Your task to perform on an android device: open sync settings in chrome Image 0: 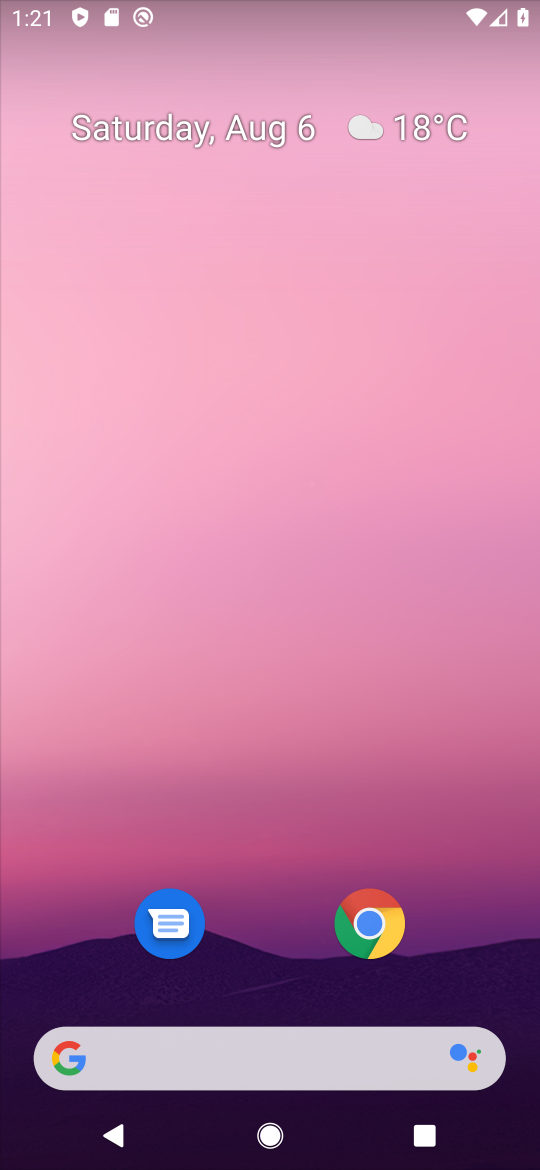
Step 0: drag from (296, 880) to (522, 265)
Your task to perform on an android device: open sync settings in chrome Image 1: 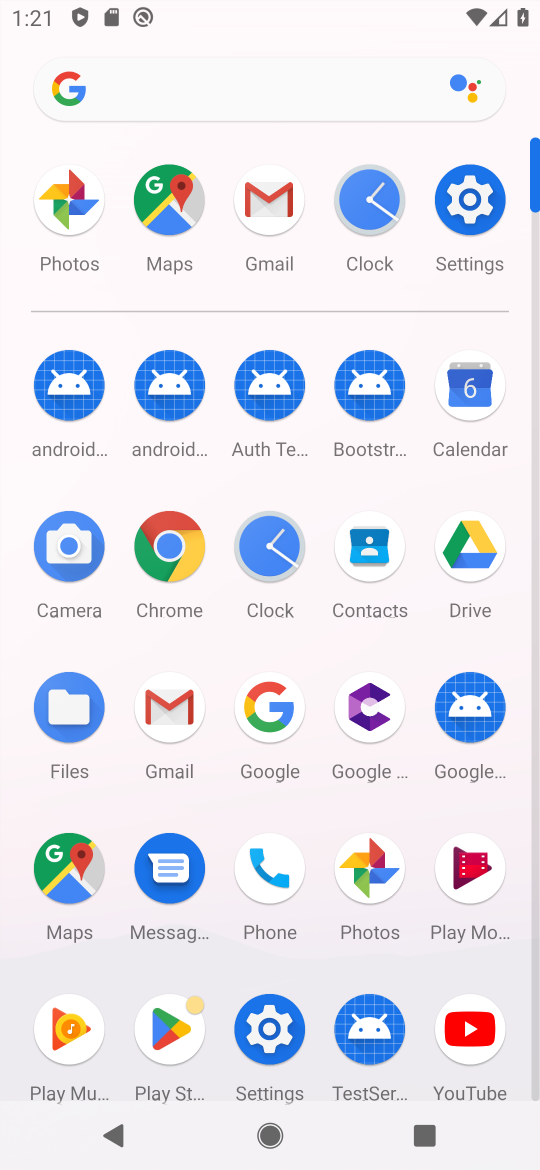
Step 1: drag from (313, 938) to (294, 313)
Your task to perform on an android device: open sync settings in chrome Image 2: 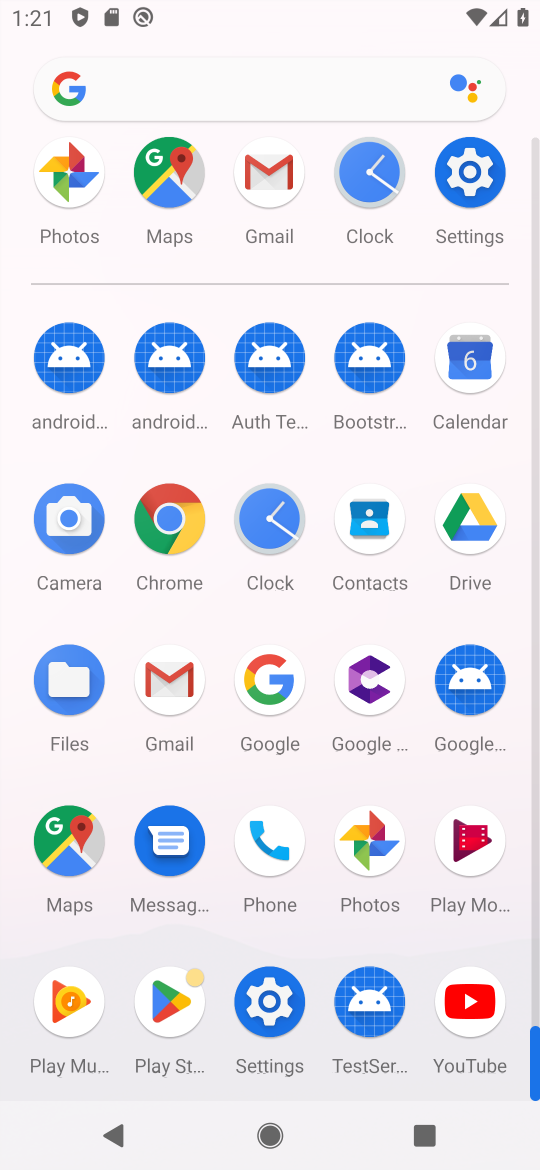
Step 2: click (147, 502)
Your task to perform on an android device: open sync settings in chrome Image 3: 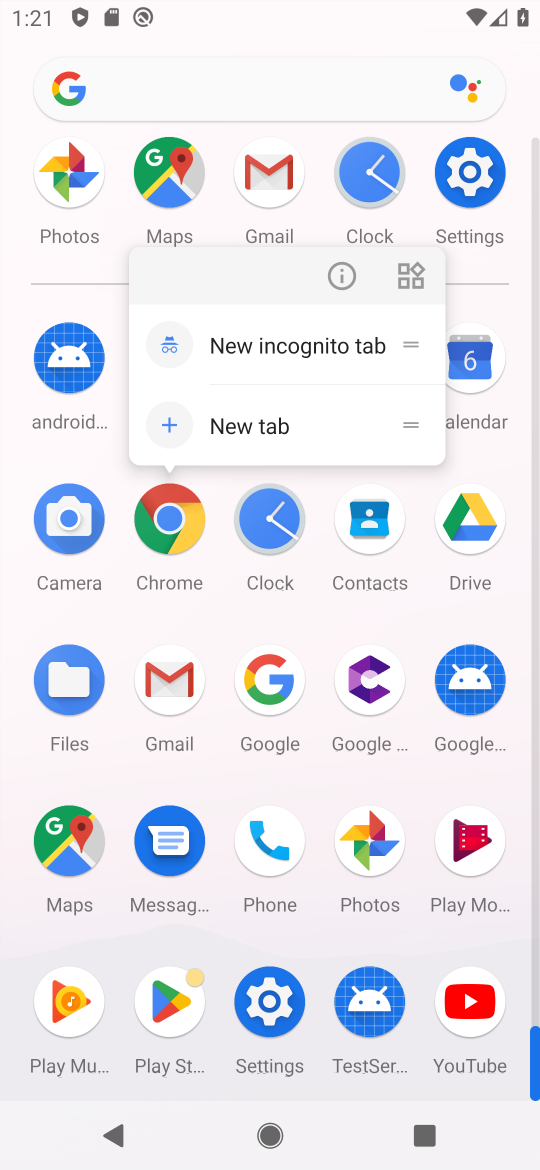
Step 3: click (331, 282)
Your task to perform on an android device: open sync settings in chrome Image 4: 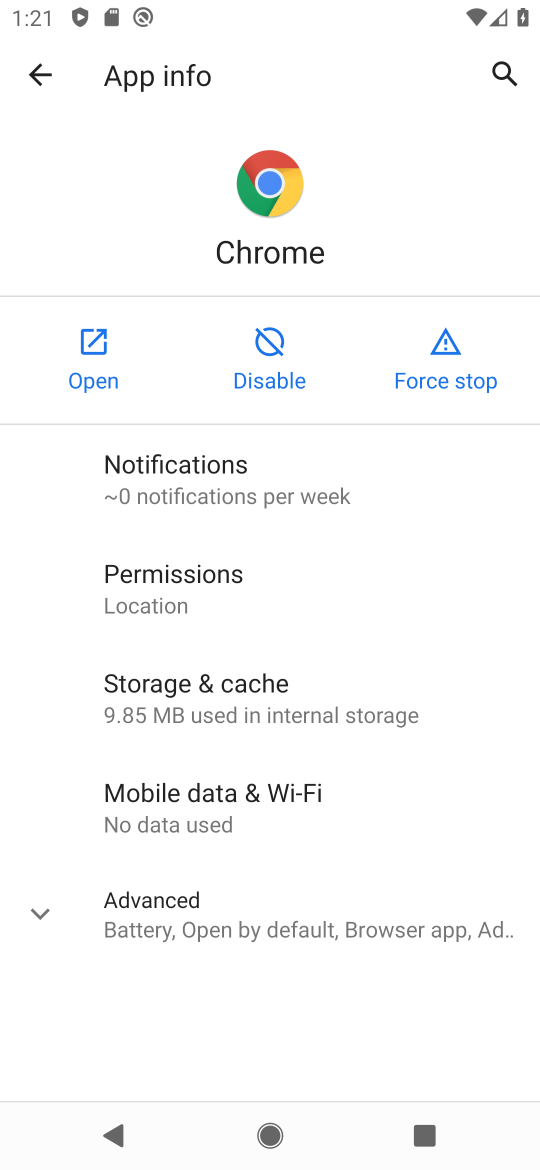
Step 4: click (87, 343)
Your task to perform on an android device: open sync settings in chrome Image 5: 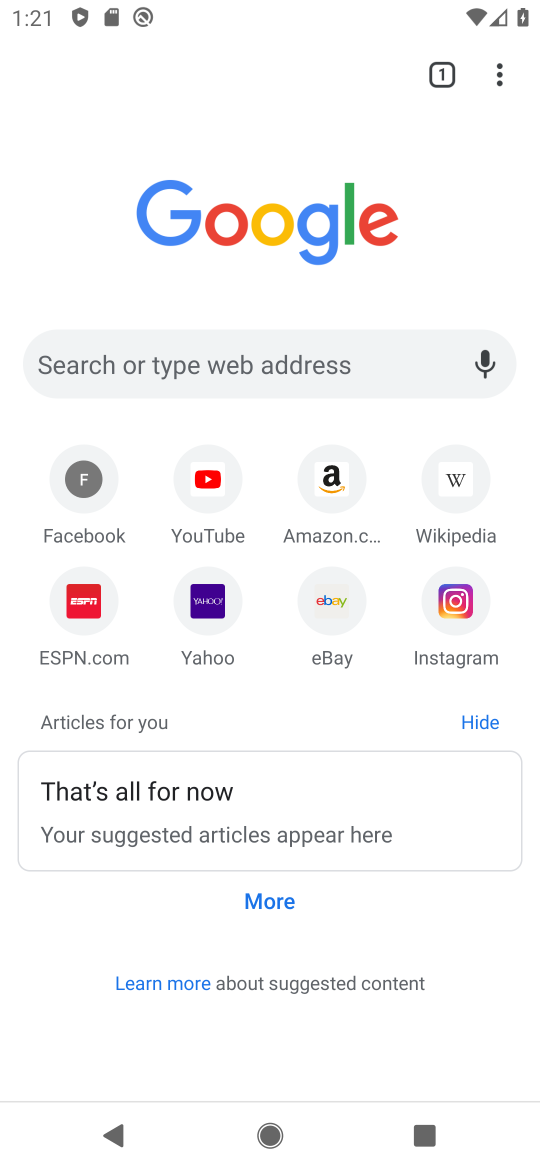
Step 5: drag from (496, 65) to (263, 725)
Your task to perform on an android device: open sync settings in chrome Image 6: 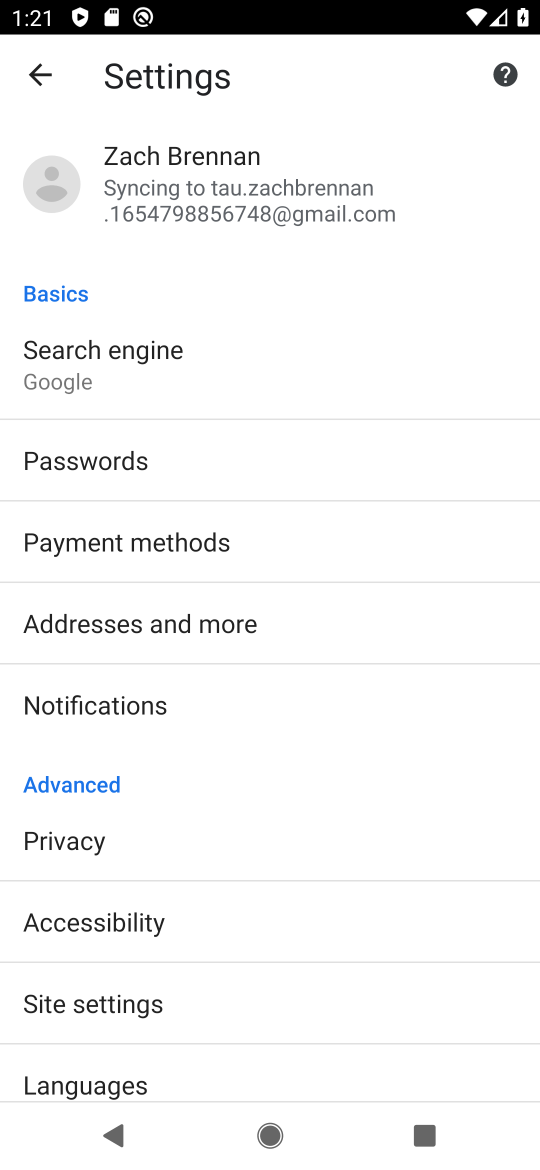
Step 6: click (170, 1017)
Your task to perform on an android device: open sync settings in chrome Image 7: 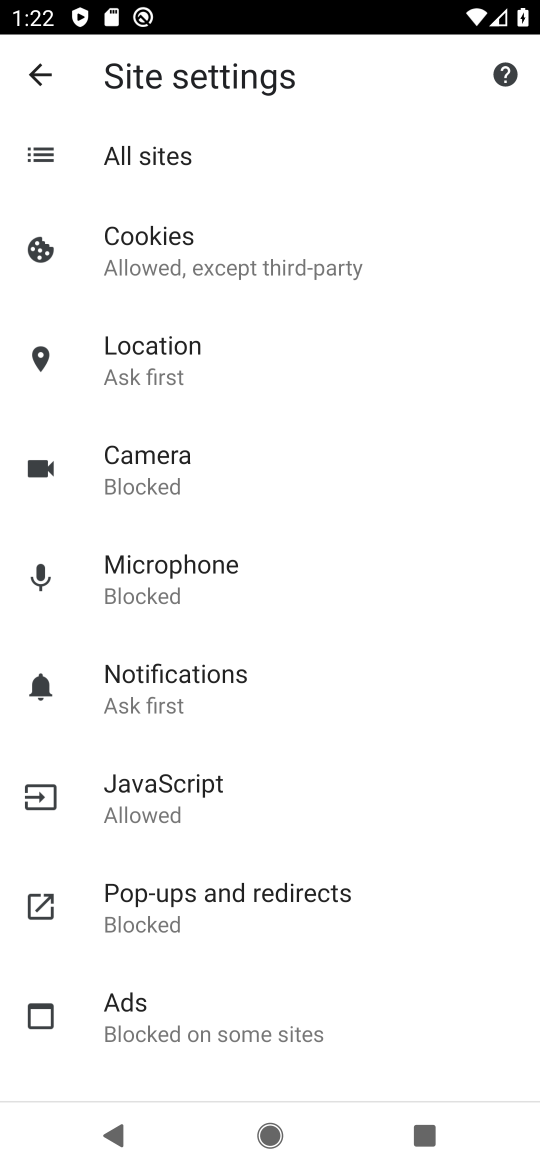
Step 7: drag from (225, 916) to (273, 319)
Your task to perform on an android device: open sync settings in chrome Image 8: 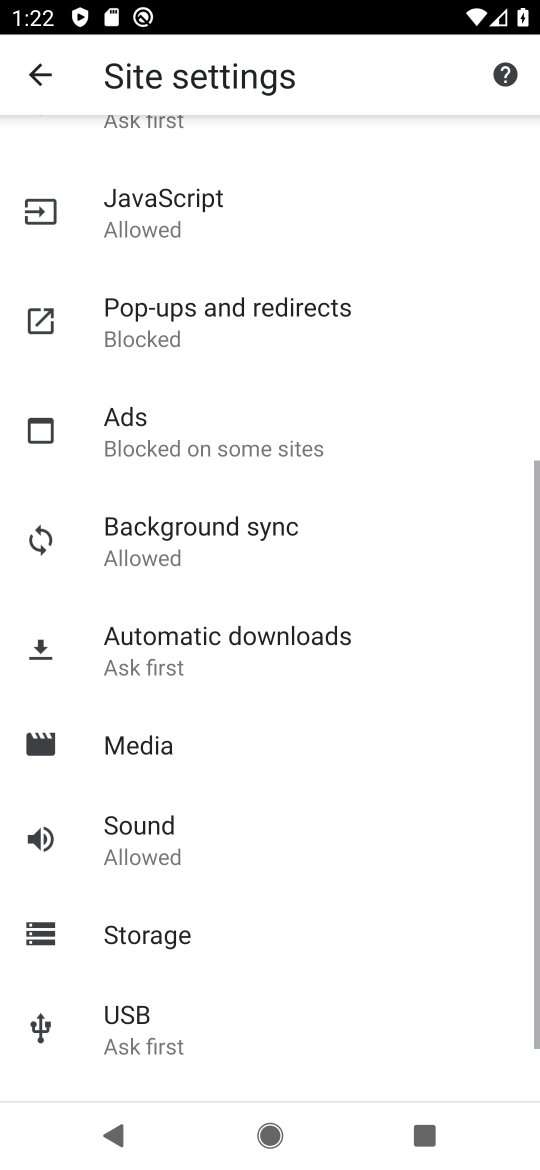
Step 8: drag from (227, 862) to (302, 418)
Your task to perform on an android device: open sync settings in chrome Image 9: 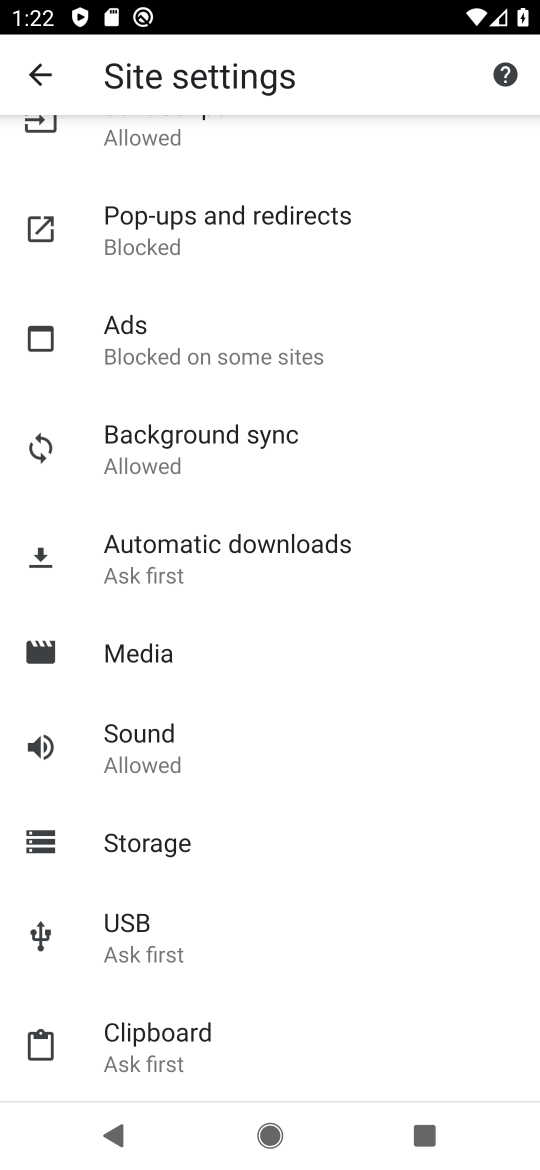
Step 9: drag from (262, 999) to (294, 311)
Your task to perform on an android device: open sync settings in chrome Image 10: 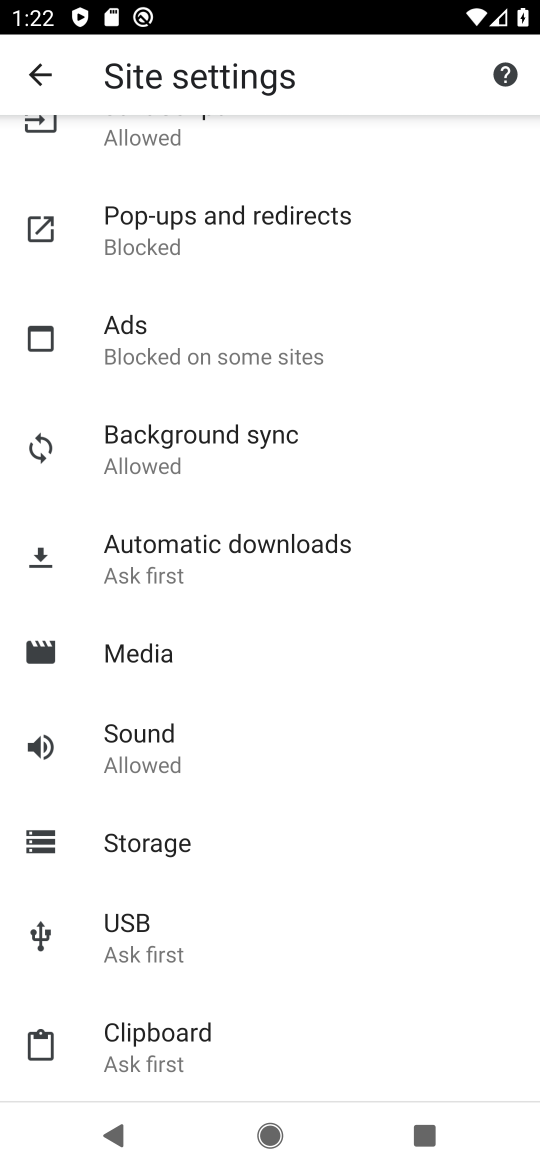
Step 10: click (233, 463)
Your task to perform on an android device: open sync settings in chrome Image 11: 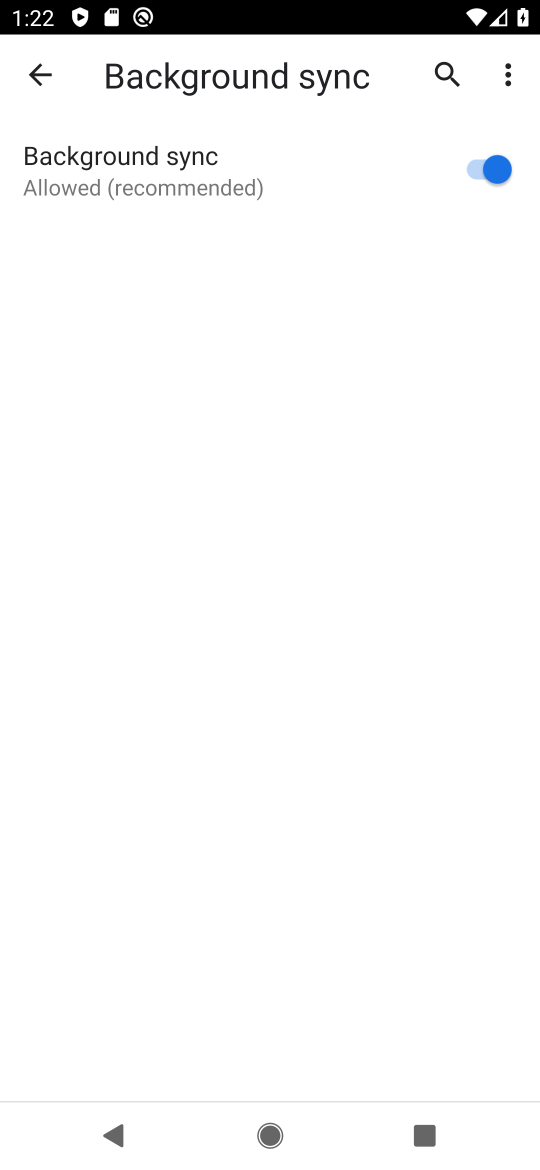
Step 11: task complete